Your task to perform on an android device: check data usage Image 0: 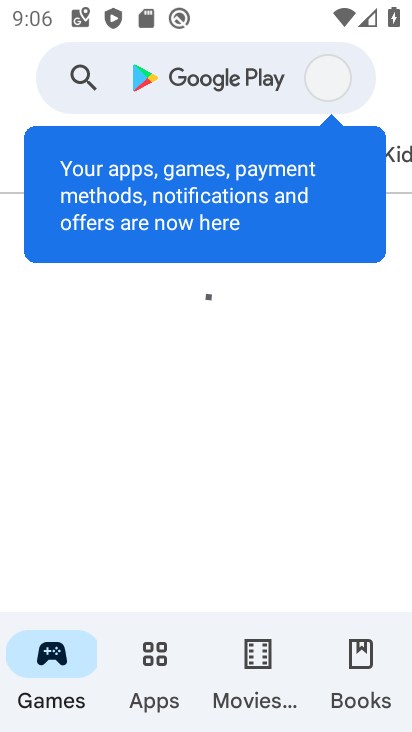
Step 0: press home button
Your task to perform on an android device: check data usage Image 1: 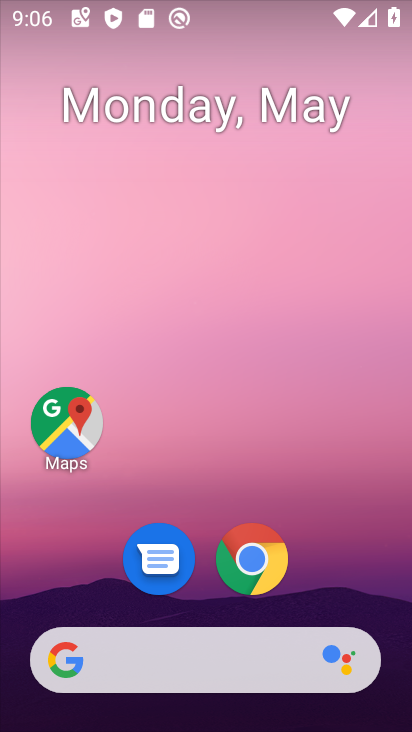
Step 1: drag from (317, 540) to (166, 69)
Your task to perform on an android device: check data usage Image 2: 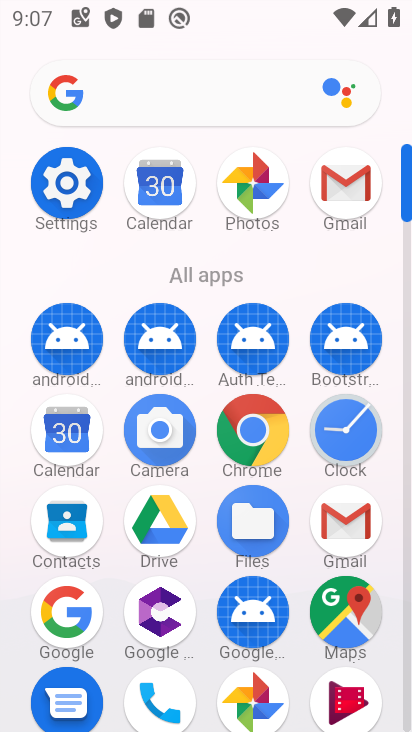
Step 2: click (70, 183)
Your task to perform on an android device: check data usage Image 3: 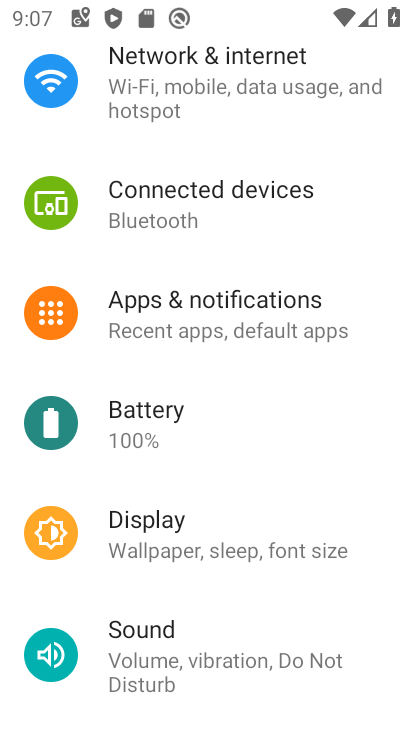
Step 3: click (158, 62)
Your task to perform on an android device: check data usage Image 4: 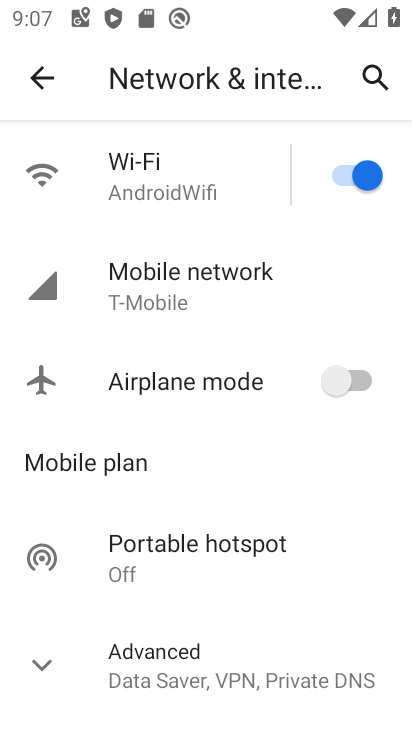
Step 4: click (170, 283)
Your task to perform on an android device: check data usage Image 5: 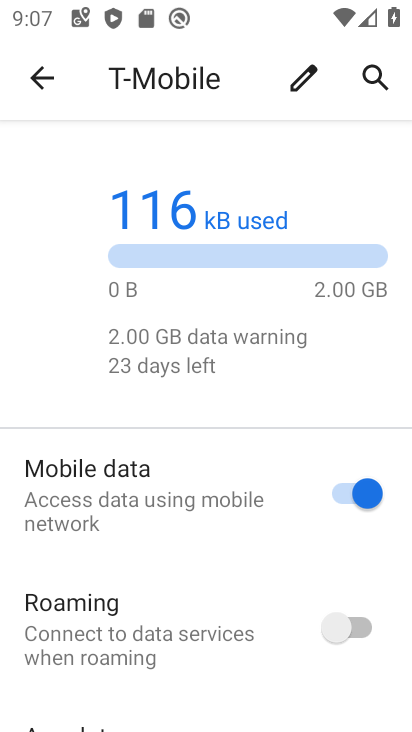
Step 5: task complete